Your task to perform on an android device: empty trash in google photos Image 0: 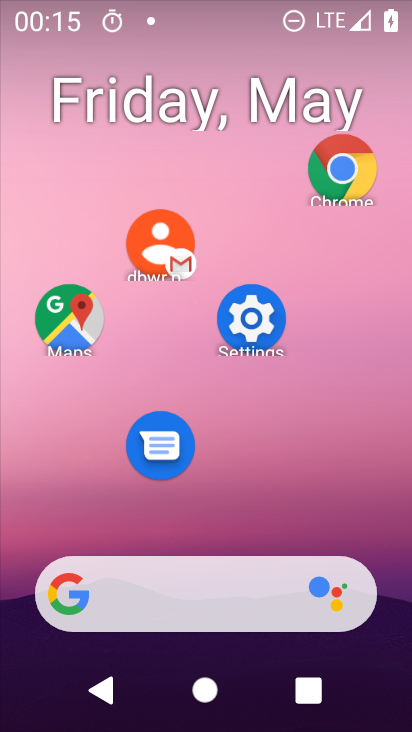
Step 0: drag from (206, 420) to (225, 170)
Your task to perform on an android device: empty trash in google photos Image 1: 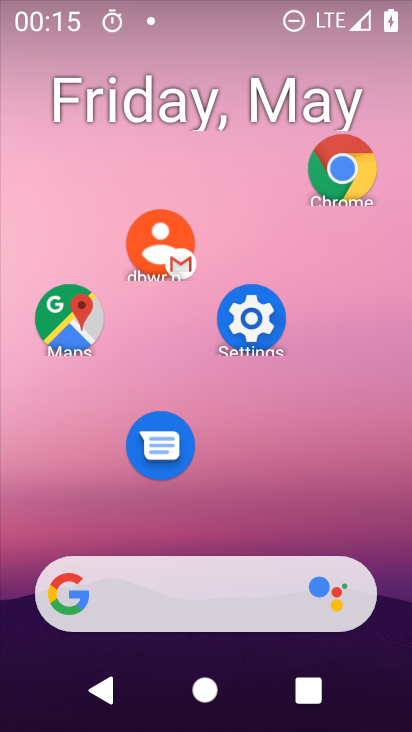
Step 1: click (241, 319)
Your task to perform on an android device: empty trash in google photos Image 2: 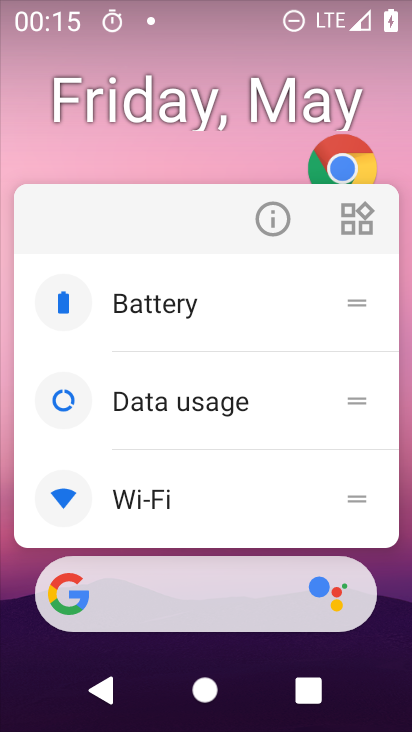
Step 2: click (399, 584)
Your task to perform on an android device: empty trash in google photos Image 3: 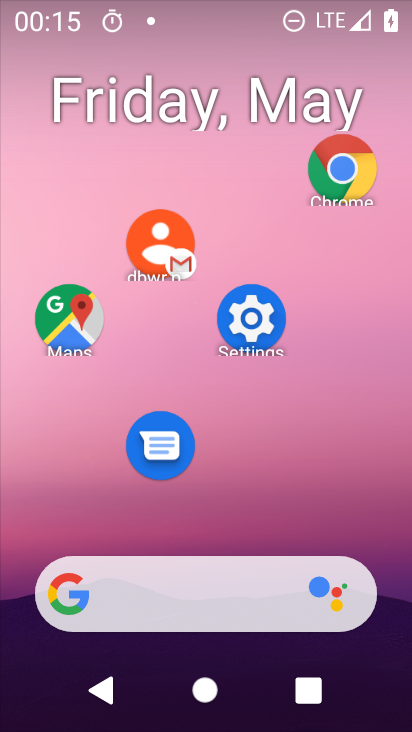
Step 3: drag from (258, 474) to (196, 8)
Your task to perform on an android device: empty trash in google photos Image 4: 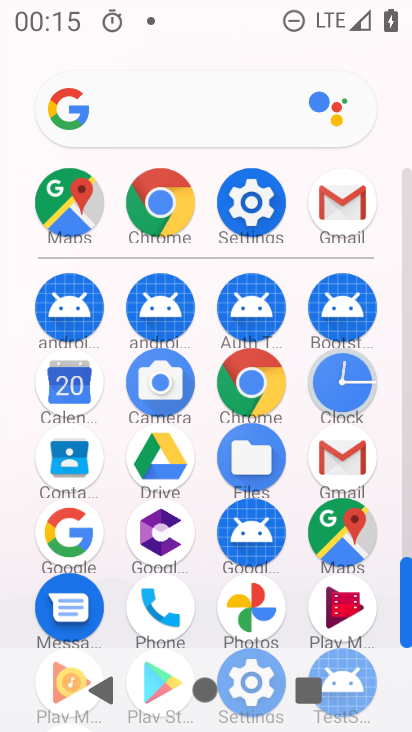
Step 4: click (259, 603)
Your task to perform on an android device: empty trash in google photos Image 5: 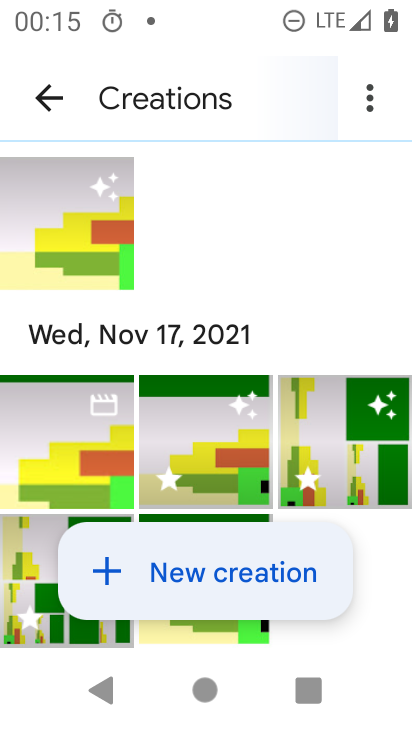
Step 5: click (42, 88)
Your task to perform on an android device: empty trash in google photos Image 6: 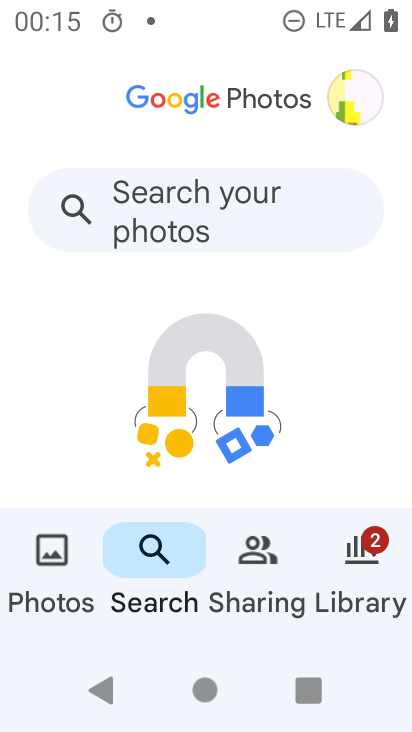
Step 6: click (337, 539)
Your task to perform on an android device: empty trash in google photos Image 7: 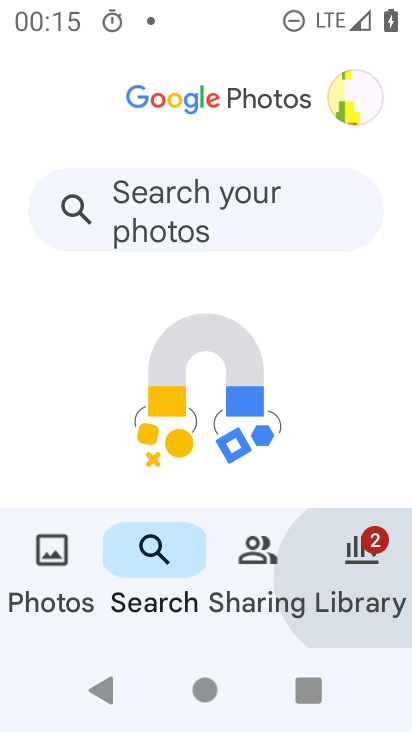
Step 7: click (353, 575)
Your task to perform on an android device: empty trash in google photos Image 8: 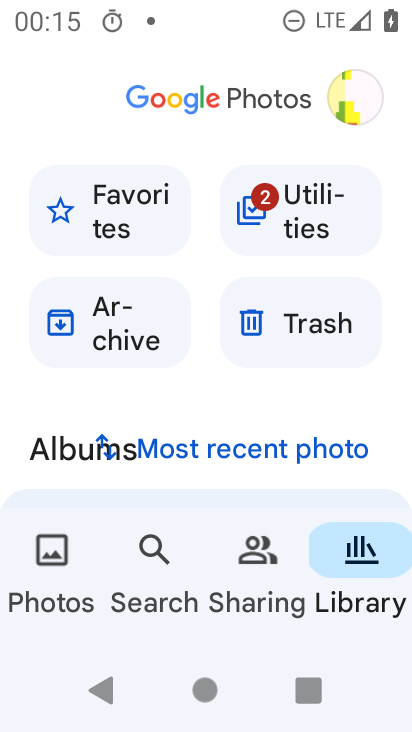
Step 8: click (307, 328)
Your task to perform on an android device: empty trash in google photos Image 9: 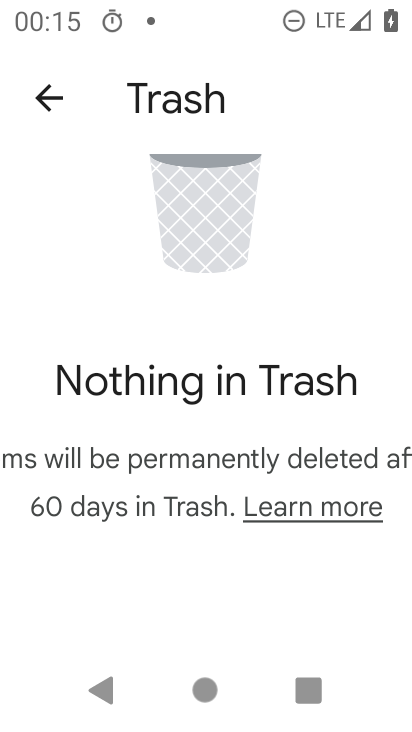
Step 9: task complete